Your task to perform on an android device: Search for seafood restaurants on Google Maps Image 0: 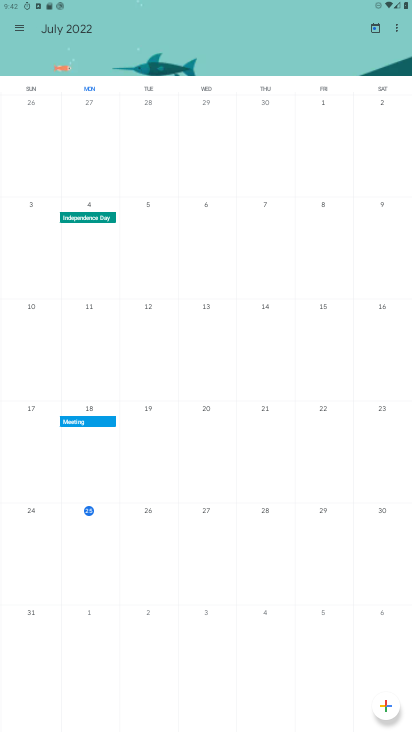
Step 0: press home button
Your task to perform on an android device: Search for seafood restaurants on Google Maps Image 1: 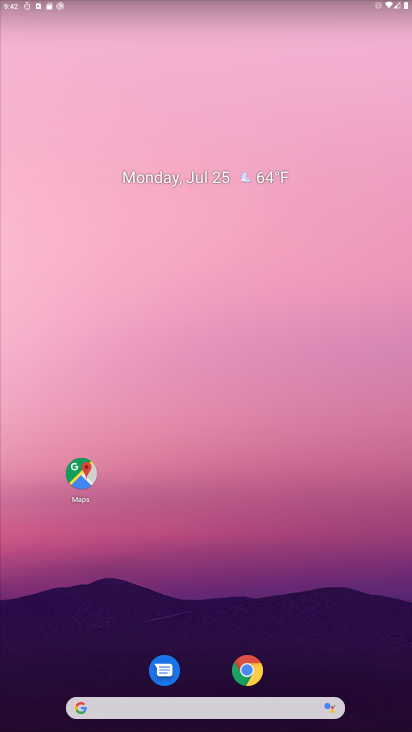
Step 1: drag from (359, 646) to (16, 15)
Your task to perform on an android device: Search for seafood restaurants on Google Maps Image 2: 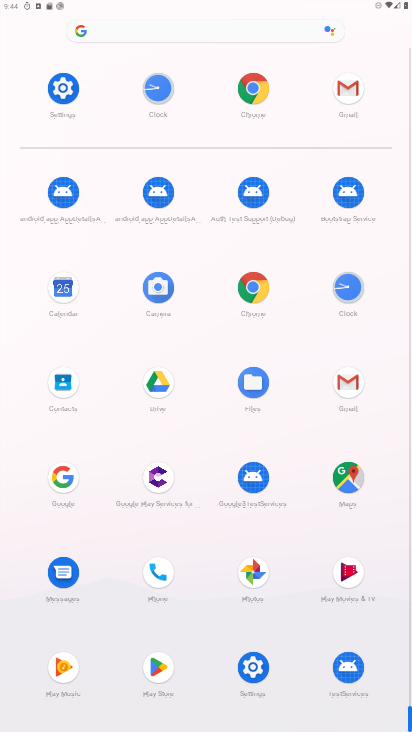
Step 2: click (344, 472)
Your task to perform on an android device: Search for seafood restaurants on Google Maps Image 3: 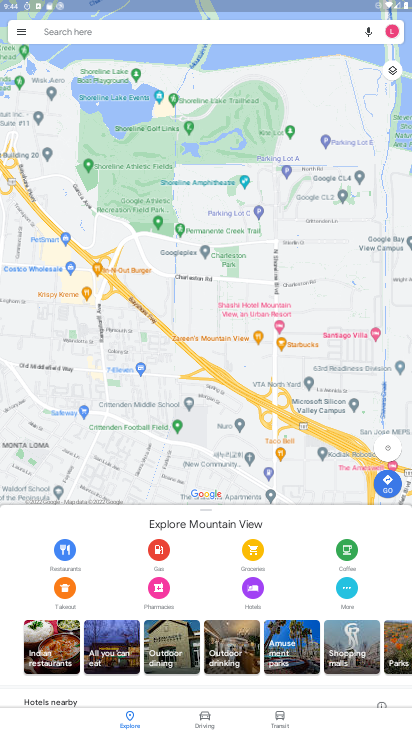
Step 3: click (99, 37)
Your task to perform on an android device: Search for seafood restaurants on Google Maps Image 4: 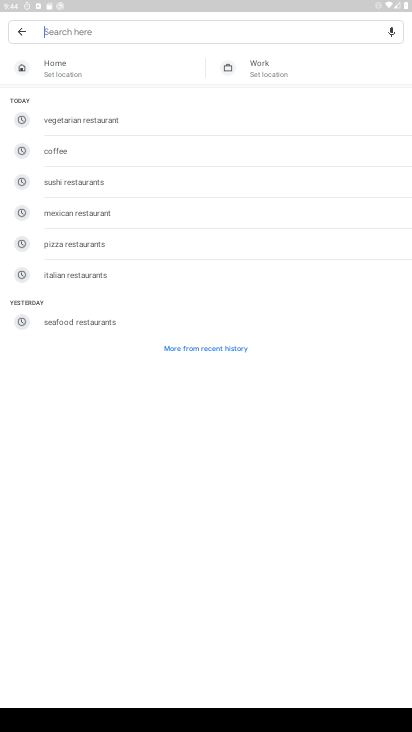
Step 4: click (89, 326)
Your task to perform on an android device: Search for seafood restaurants on Google Maps Image 5: 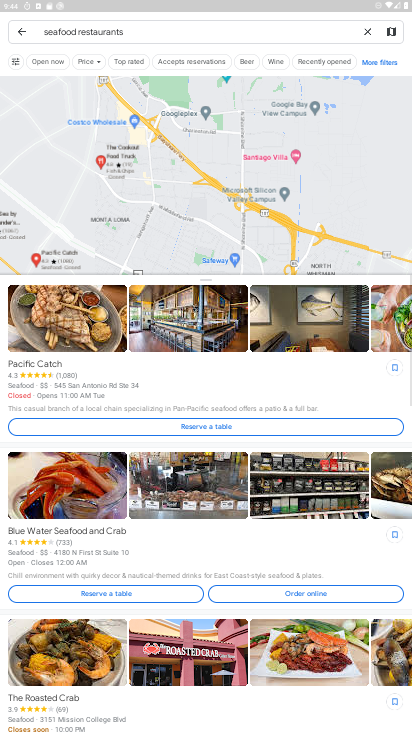
Step 5: task complete